Your task to perform on an android device: Search for Italian restaurants on Maps Image 0: 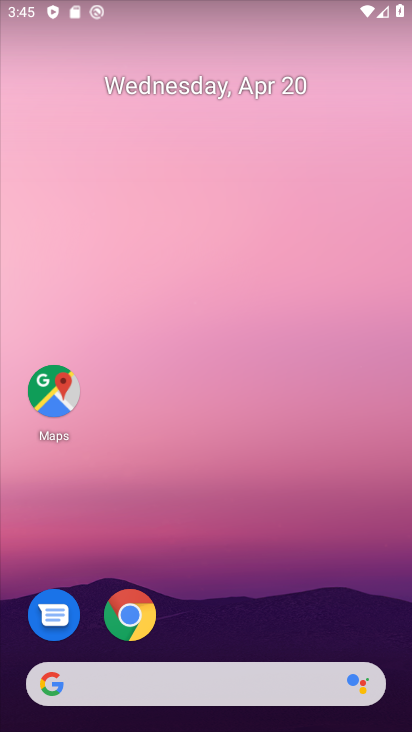
Step 0: drag from (190, 618) to (298, 249)
Your task to perform on an android device: Search for Italian restaurants on Maps Image 1: 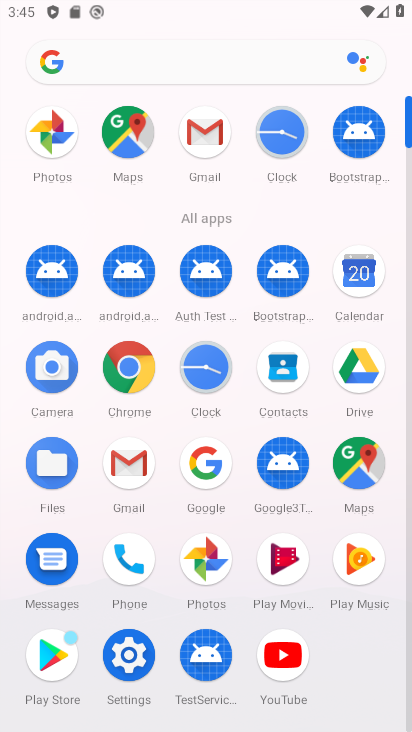
Step 1: click (135, 140)
Your task to perform on an android device: Search for Italian restaurants on Maps Image 2: 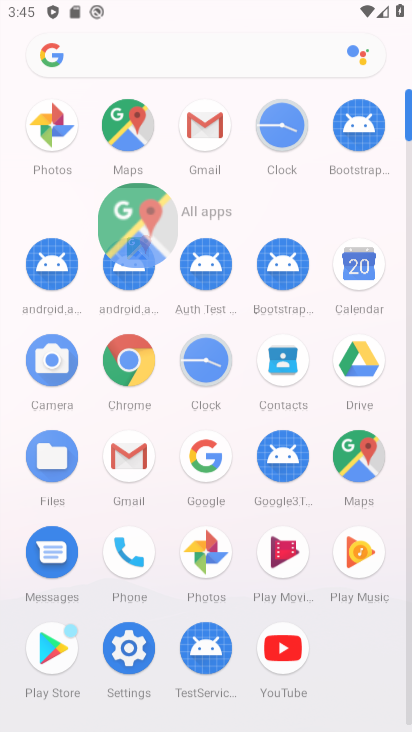
Step 2: click (135, 140)
Your task to perform on an android device: Search for Italian restaurants on Maps Image 3: 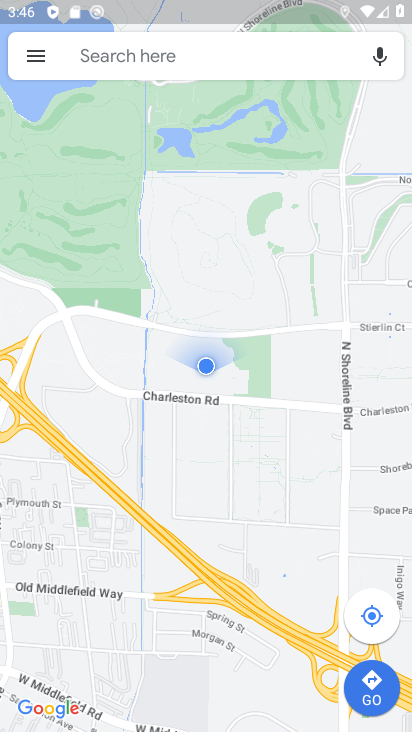
Step 3: click (251, 43)
Your task to perform on an android device: Search for Italian restaurants on Maps Image 4: 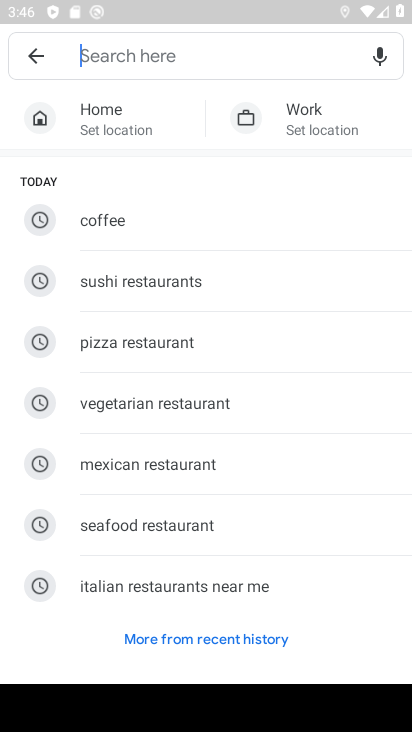
Step 4: click (160, 40)
Your task to perform on an android device: Search for Italian restaurants on Maps Image 5: 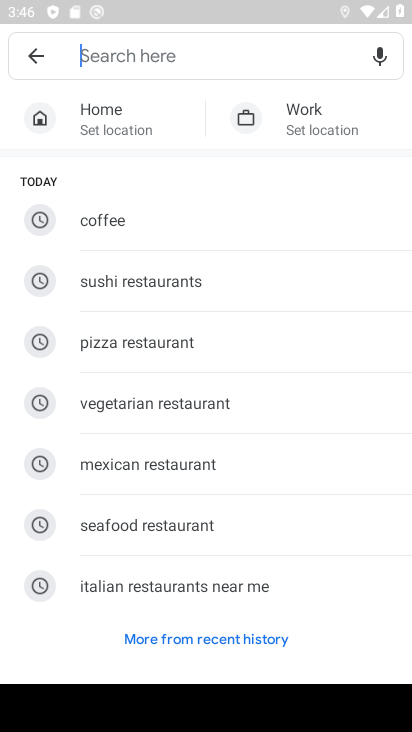
Step 5: type "Italian restaurants "
Your task to perform on an android device: Search for Italian restaurants on Maps Image 6: 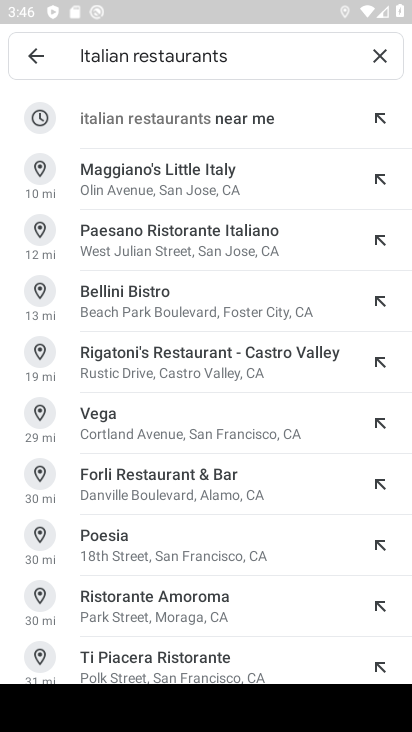
Step 6: click (183, 112)
Your task to perform on an android device: Search for Italian restaurants on Maps Image 7: 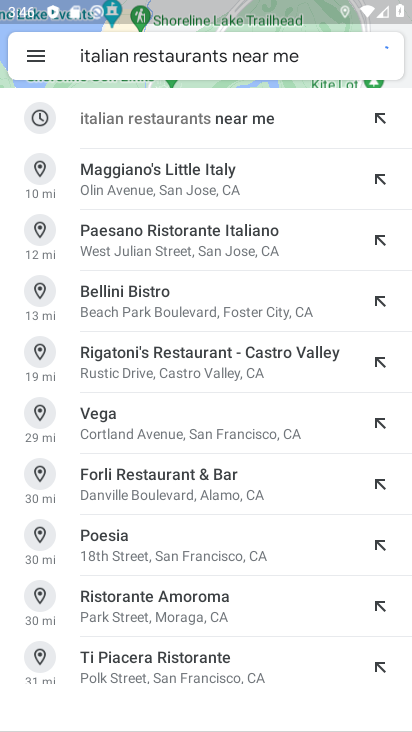
Step 7: click (236, 119)
Your task to perform on an android device: Search for Italian restaurants on Maps Image 8: 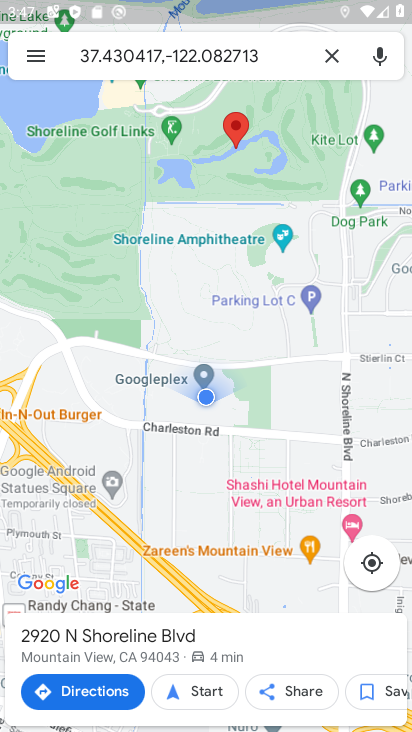
Step 8: task complete